Your task to perform on an android device: Search for coffee table on Crate & Barrel Image 0: 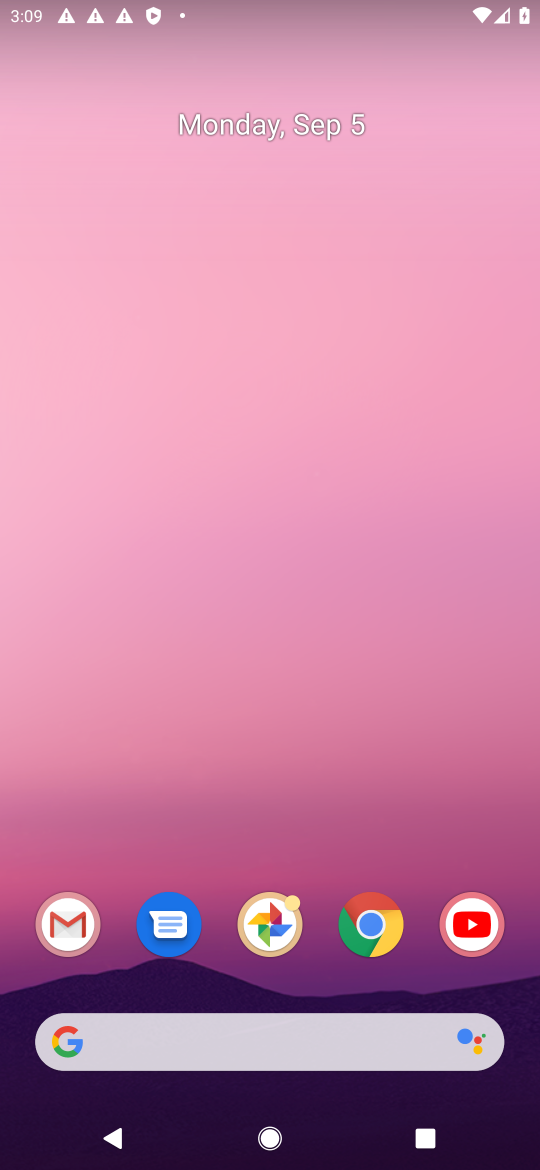
Step 0: click (366, 932)
Your task to perform on an android device: Search for coffee table on Crate & Barrel Image 1: 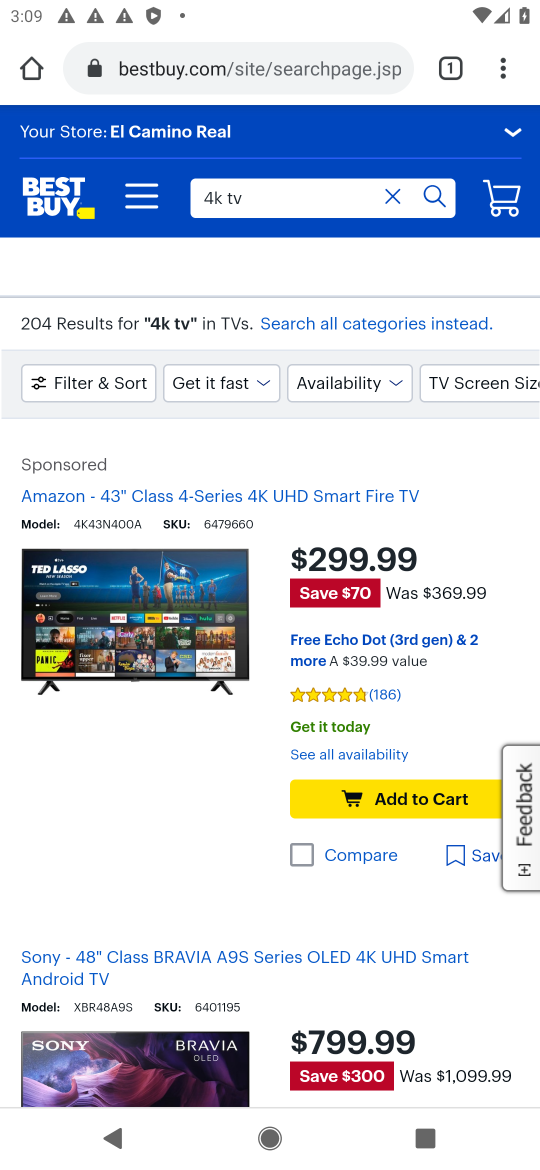
Step 1: click (267, 71)
Your task to perform on an android device: Search for coffee table on Crate & Barrel Image 2: 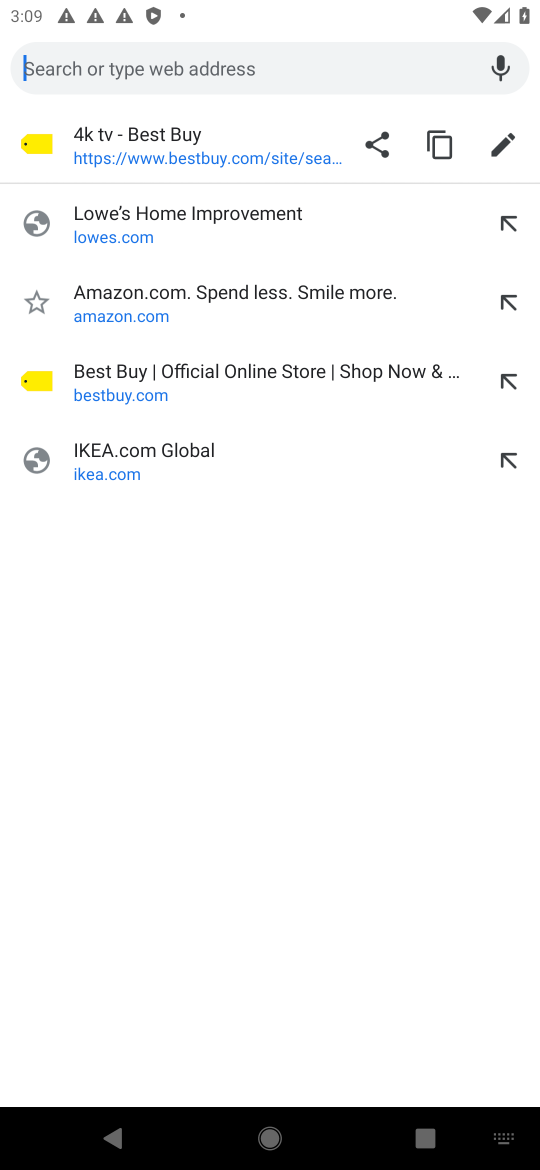
Step 2: type "crate and barrel"
Your task to perform on an android device: Search for coffee table on Crate & Barrel Image 3: 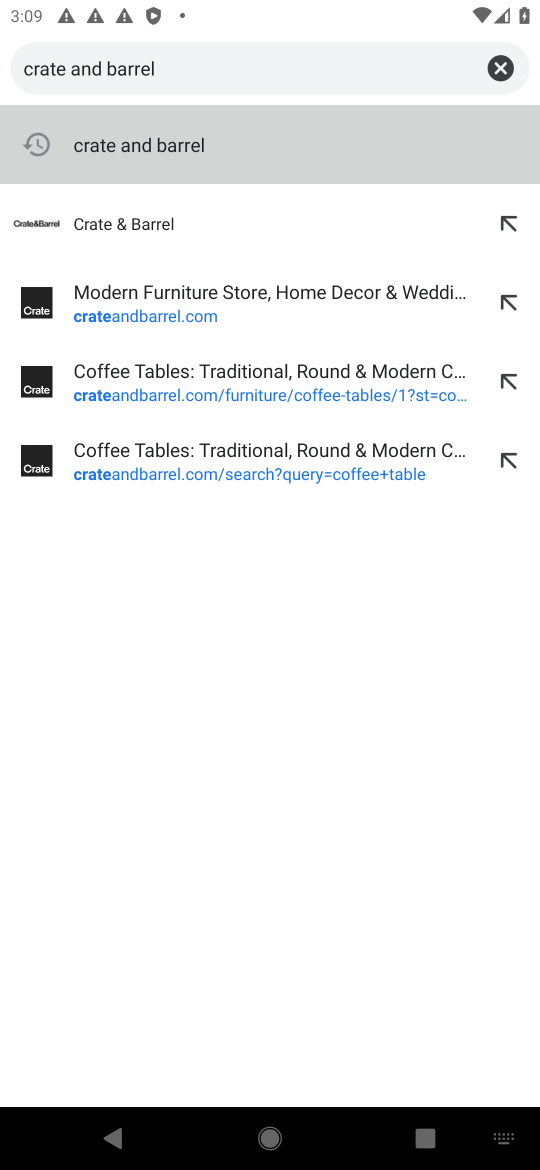
Step 3: click (160, 234)
Your task to perform on an android device: Search for coffee table on Crate & Barrel Image 4: 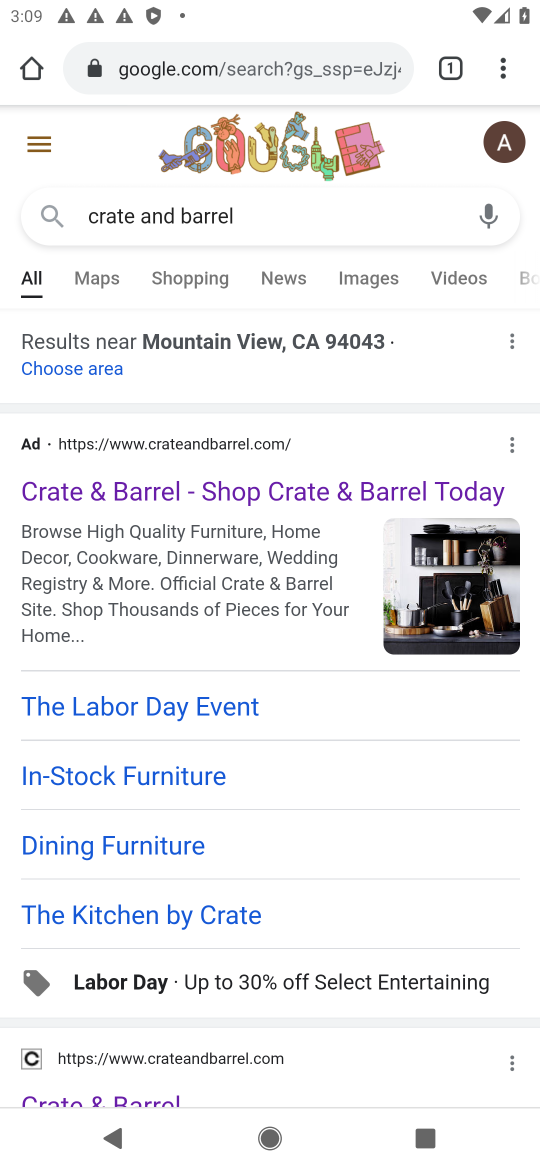
Step 4: drag from (278, 848) to (330, 285)
Your task to perform on an android device: Search for coffee table on Crate & Barrel Image 5: 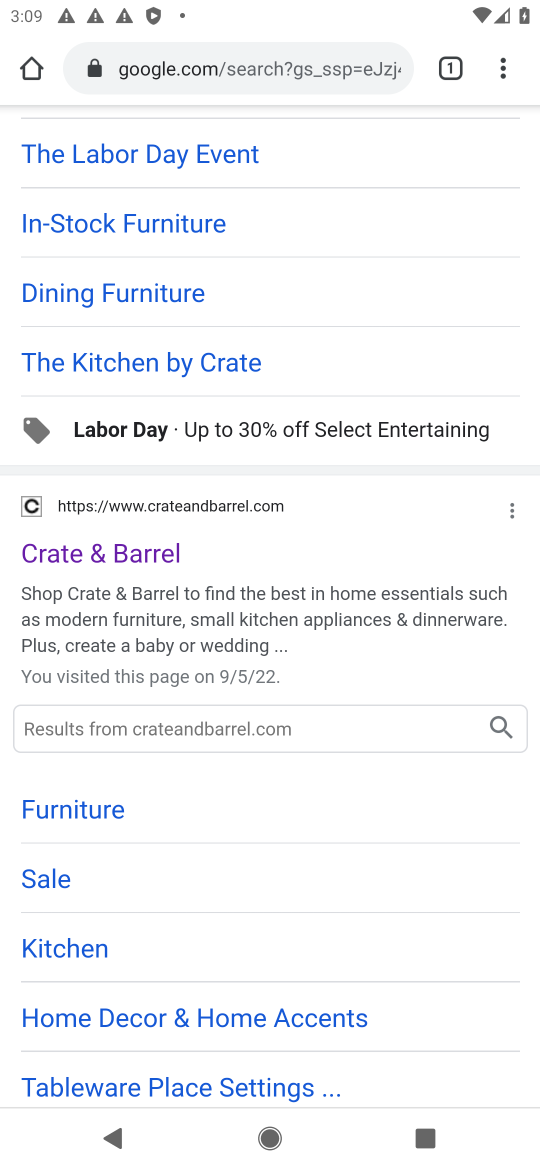
Step 5: click (115, 568)
Your task to perform on an android device: Search for coffee table on Crate & Barrel Image 6: 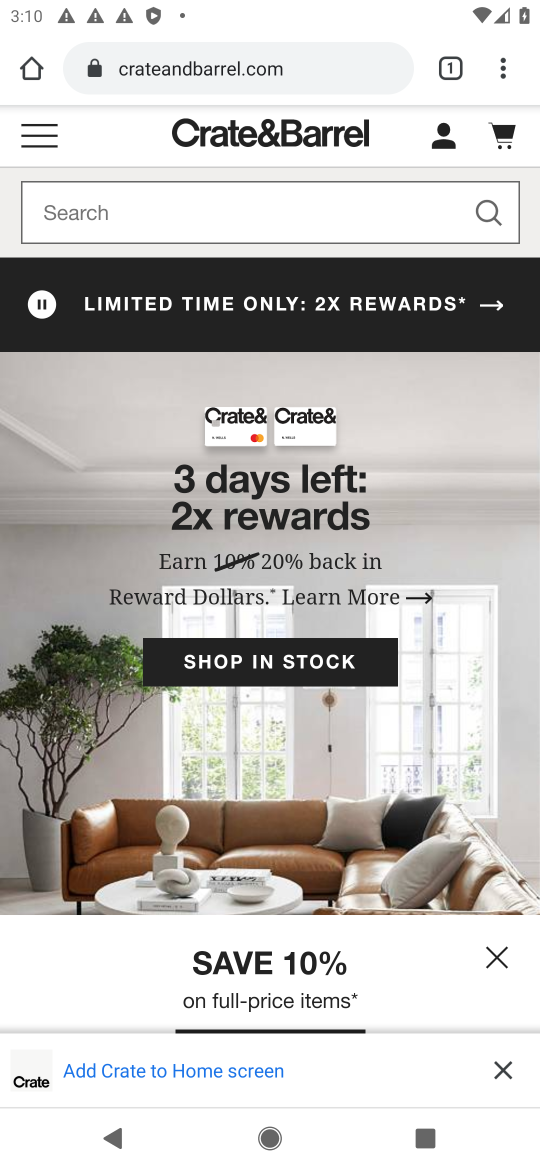
Step 6: click (395, 214)
Your task to perform on an android device: Search for coffee table on Crate & Barrel Image 7: 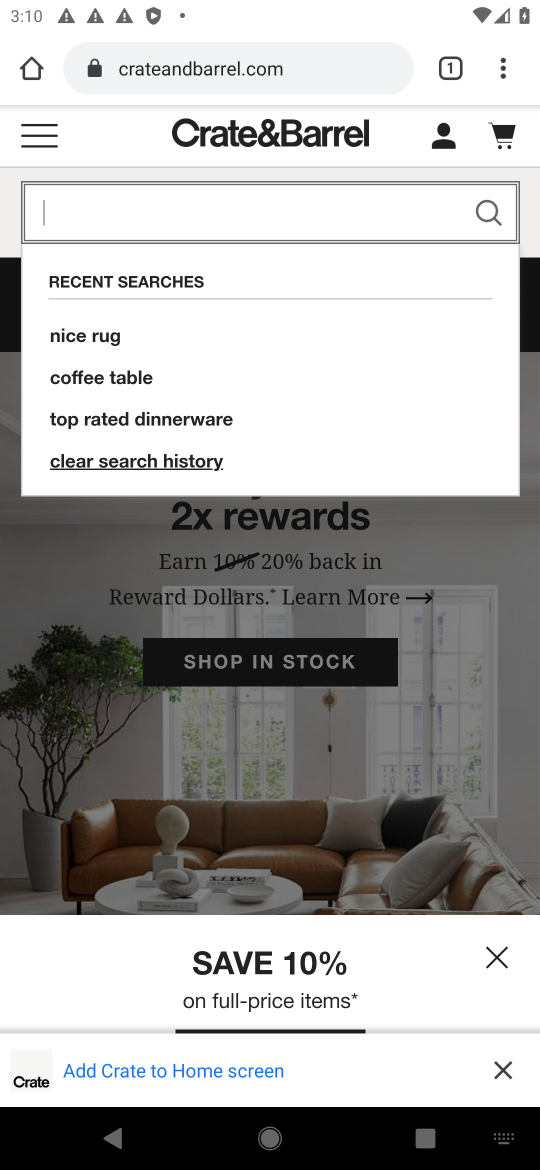
Step 7: type "coffee tables"
Your task to perform on an android device: Search for coffee table on Crate & Barrel Image 8: 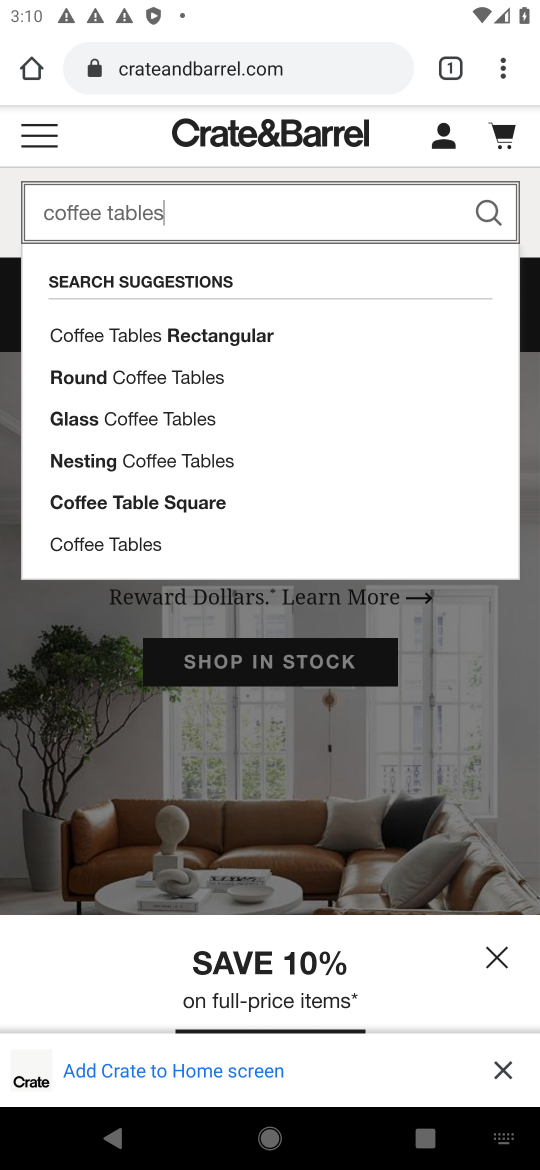
Step 8: click (135, 546)
Your task to perform on an android device: Search for coffee table on Crate & Barrel Image 9: 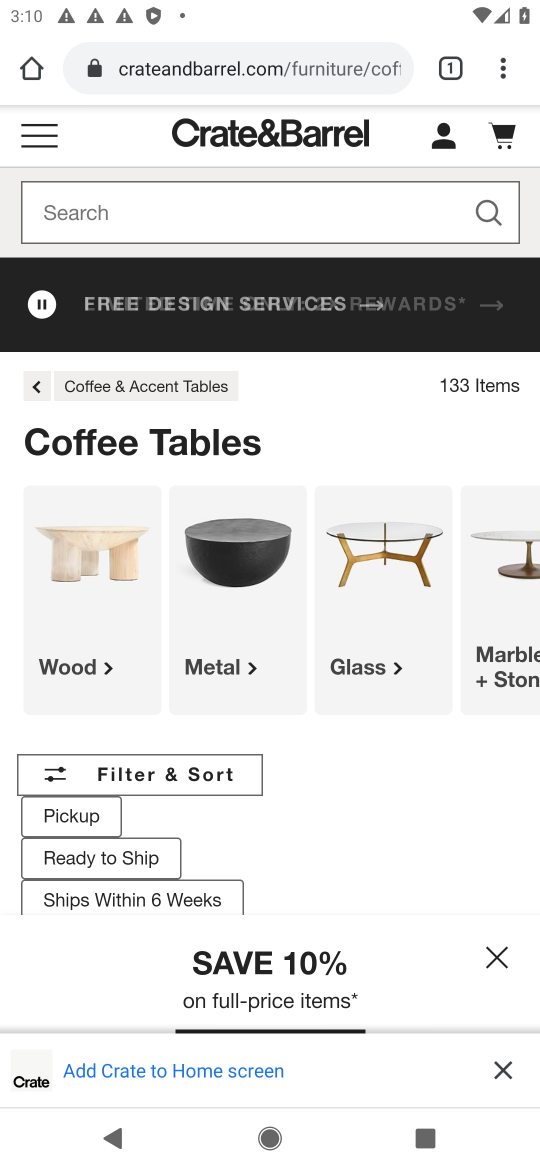
Step 9: click (493, 966)
Your task to perform on an android device: Search for coffee table on Crate & Barrel Image 10: 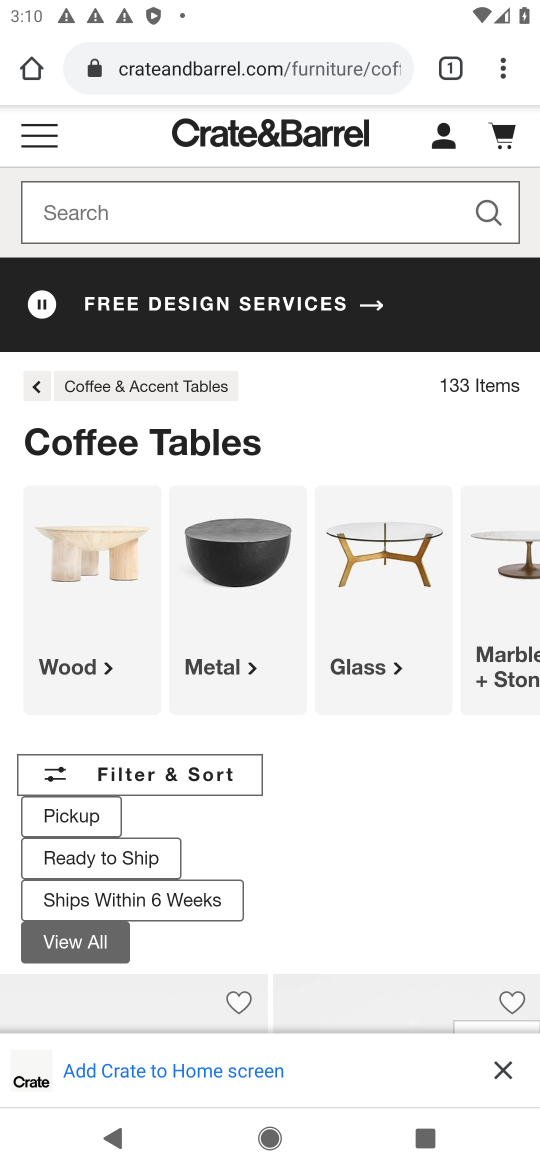
Step 10: task complete